Your task to perform on an android device: open chrome and create a bookmark for the current page Image 0: 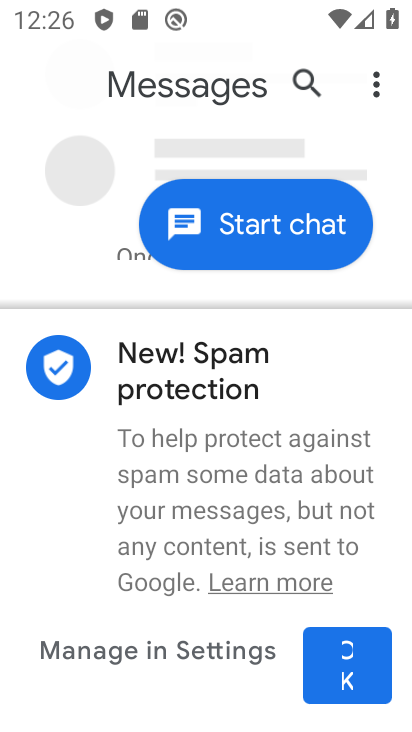
Step 0: press home button
Your task to perform on an android device: open chrome and create a bookmark for the current page Image 1: 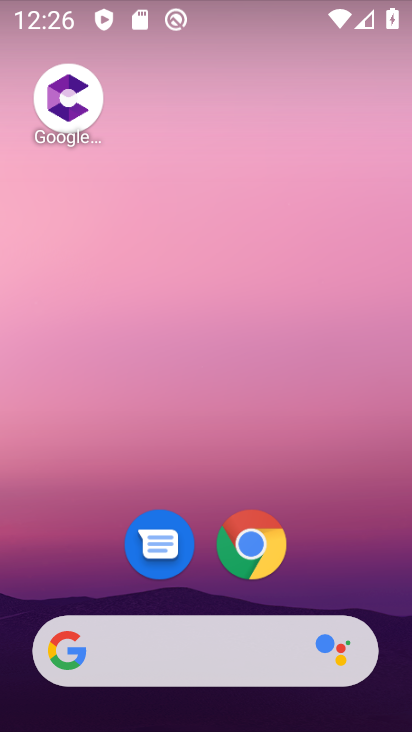
Step 1: click (252, 553)
Your task to perform on an android device: open chrome and create a bookmark for the current page Image 2: 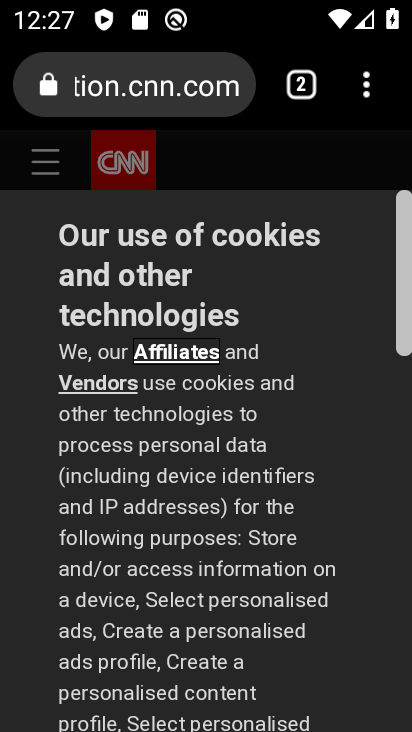
Step 2: press home button
Your task to perform on an android device: open chrome and create a bookmark for the current page Image 3: 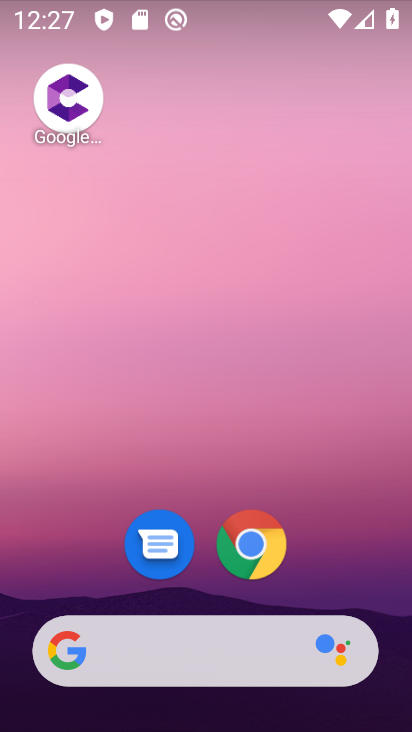
Step 3: click (251, 545)
Your task to perform on an android device: open chrome and create a bookmark for the current page Image 4: 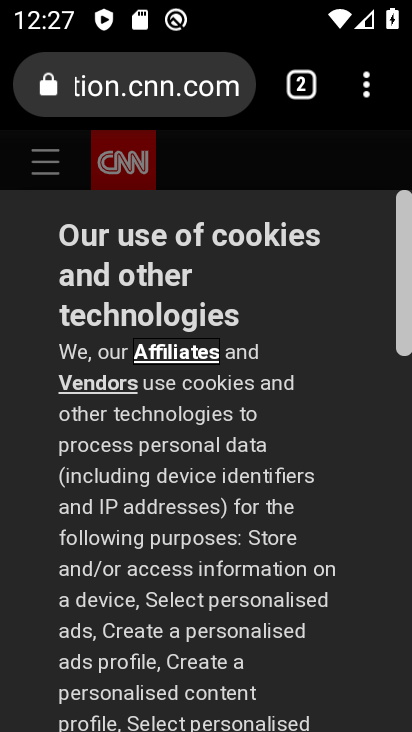
Step 4: click (366, 97)
Your task to perform on an android device: open chrome and create a bookmark for the current page Image 5: 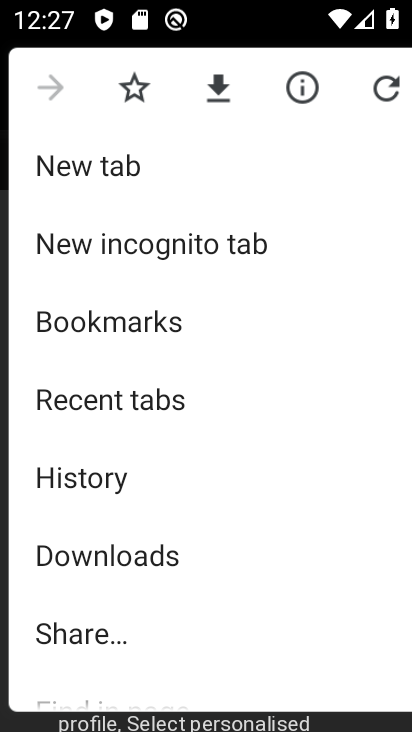
Step 5: click (133, 87)
Your task to perform on an android device: open chrome and create a bookmark for the current page Image 6: 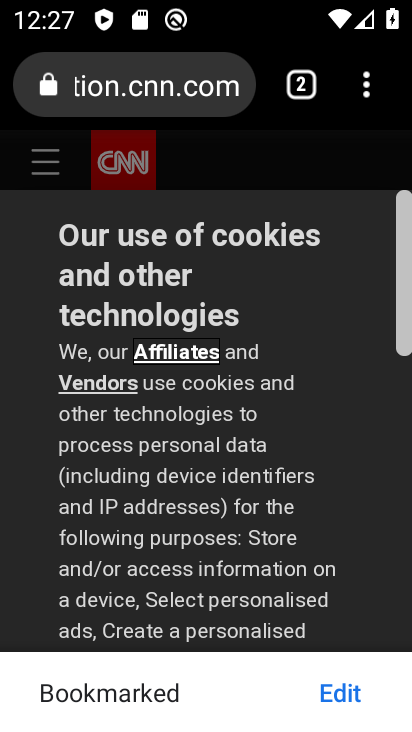
Step 6: task complete